Your task to perform on an android device: Open Yahoo.com Image 0: 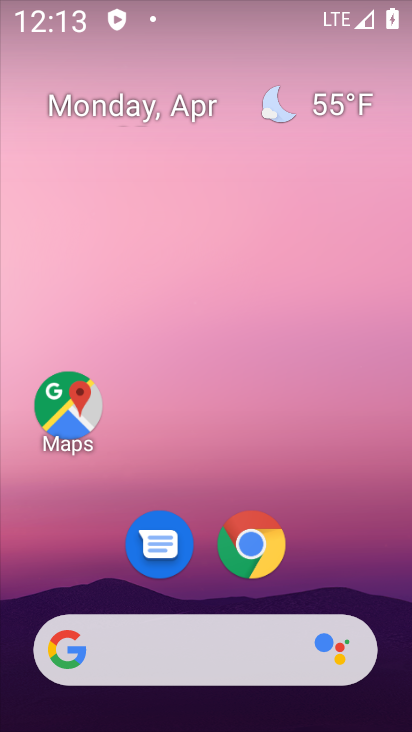
Step 0: click (244, 550)
Your task to perform on an android device: Open Yahoo.com Image 1: 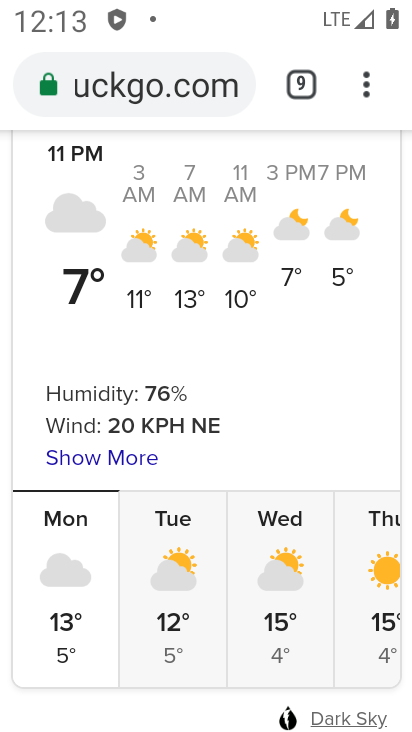
Step 1: click (285, 78)
Your task to perform on an android device: Open Yahoo.com Image 2: 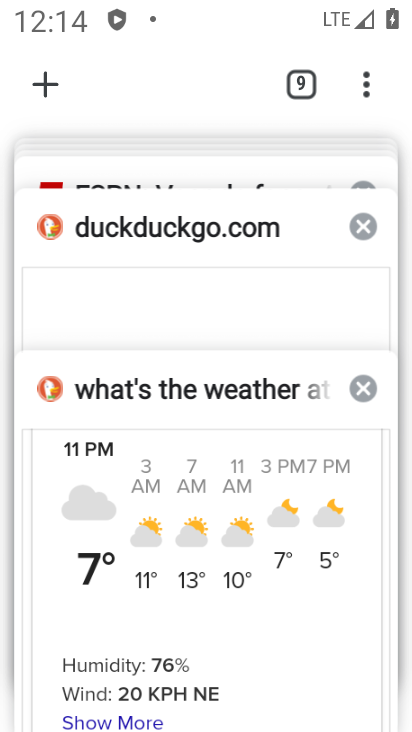
Step 2: drag from (210, 303) to (199, 652)
Your task to perform on an android device: Open Yahoo.com Image 3: 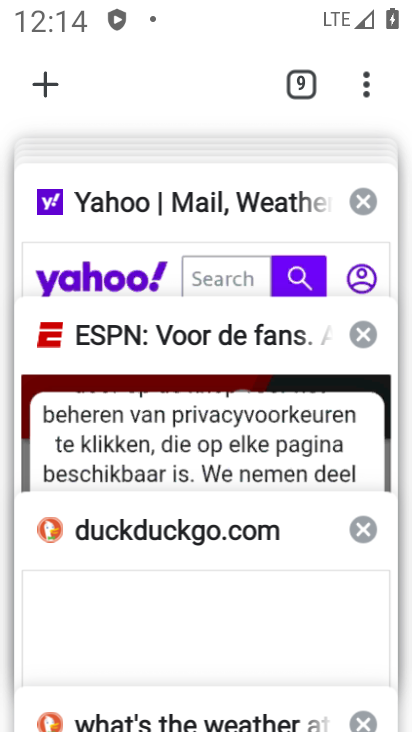
Step 3: click (163, 221)
Your task to perform on an android device: Open Yahoo.com Image 4: 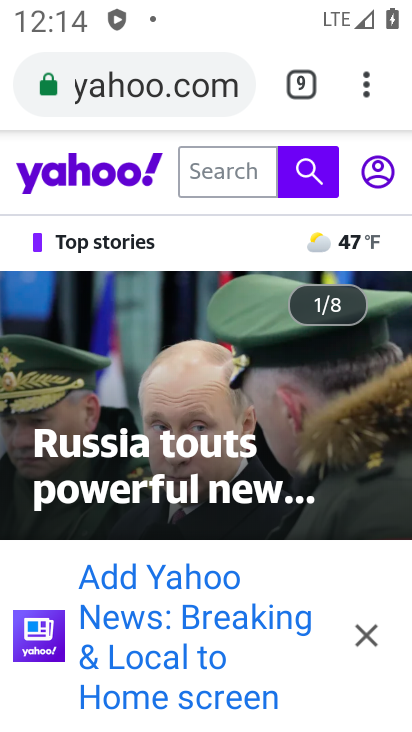
Step 4: task complete